Your task to perform on an android device: Go to display settings Image 0: 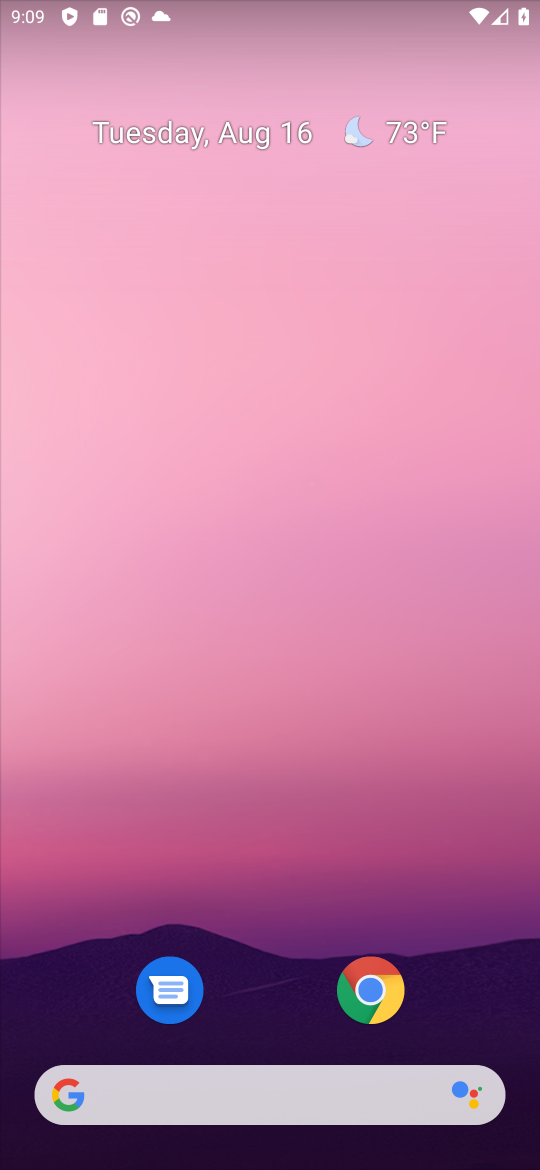
Step 0: drag from (473, 1027) to (409, 456)
Your task to perform on an android device: Go to display settings Image 1: 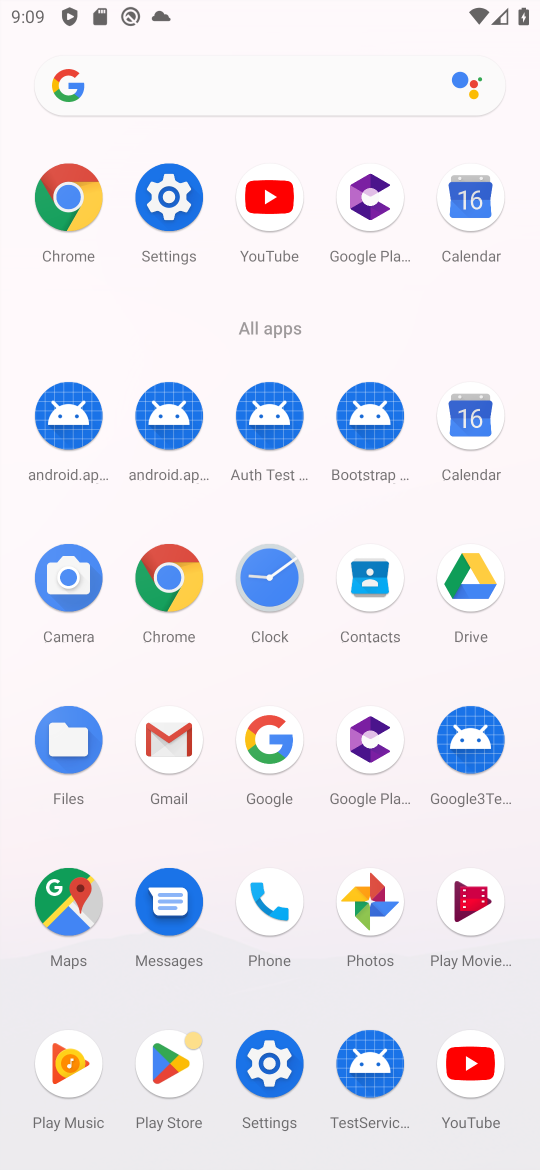
Step 1: click (259, 1057)
Your task to perform on an android device: Go to display settings Image 2: 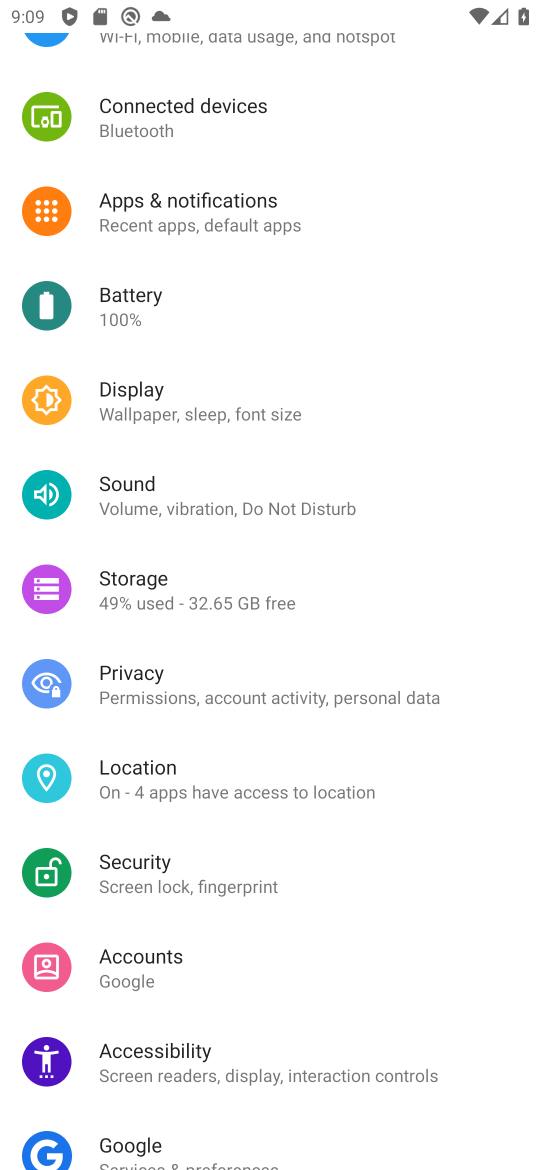
Step 2: click (142, 383)
Your task to perform on an android device: Go to display settings Image 3: 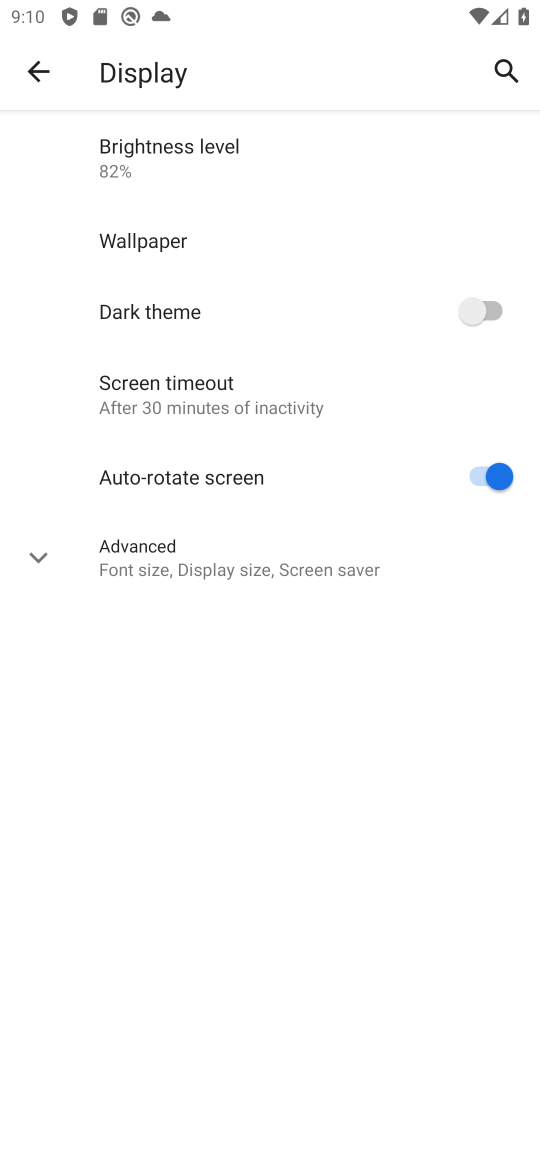
Step 3: task complete